Your task to perform on an android device: Toggle the flashlight Image 0: 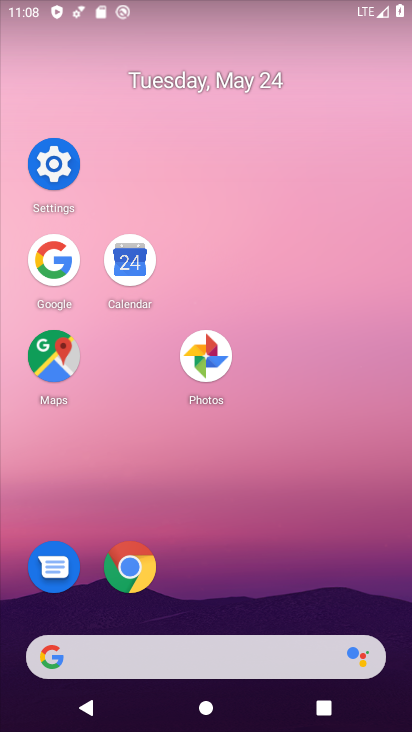
Step 0: drag from (275, 0) to (216, 453)
Your task to perform on an android device: Toggle the flashlight Image 1: 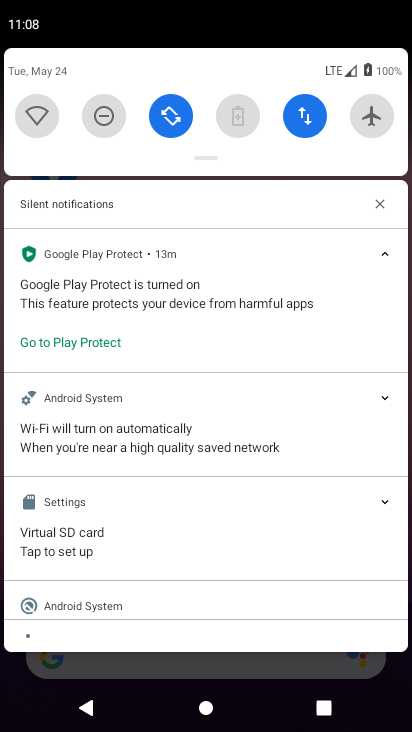
Step 1: task complete